Your task to perform on an android device: change text size in settings app Image 0: 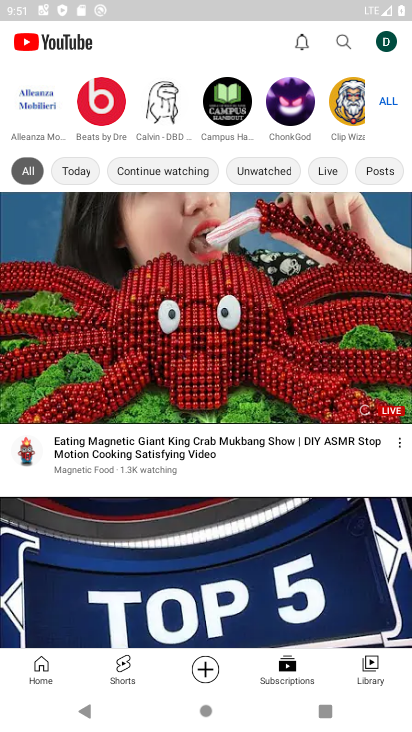
Step 0: press home button
Your task to perform on an android device: change text size in settings app Image 1: 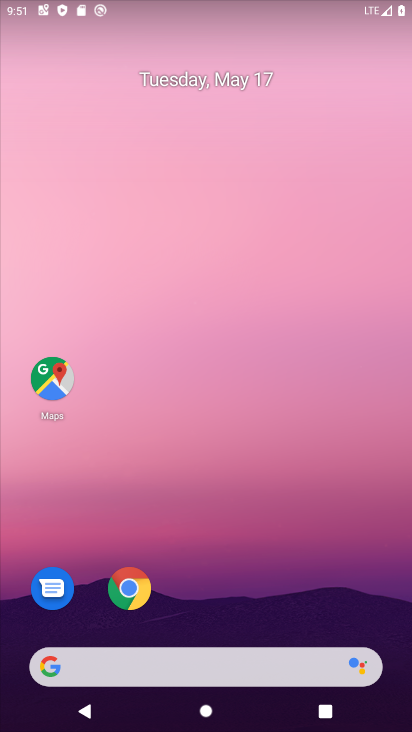
Step 1: drag from (199, 631) to (257, 4)
Your task to perform on an android device: change text size in settings app Image 2: 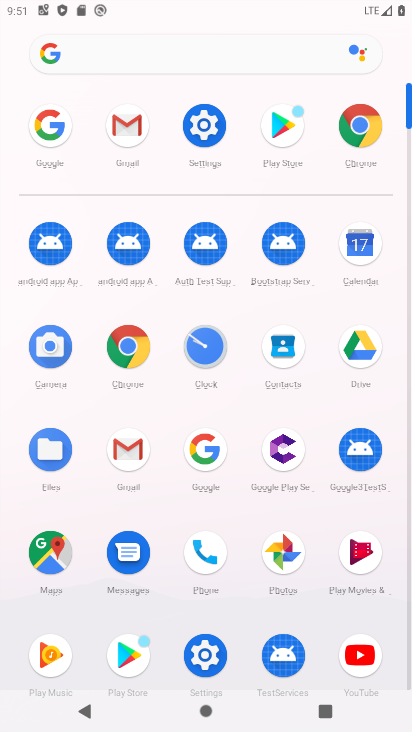
Step 2: click (192, 141)
Your task to perform on an android device: change text size in settings app Image 3: 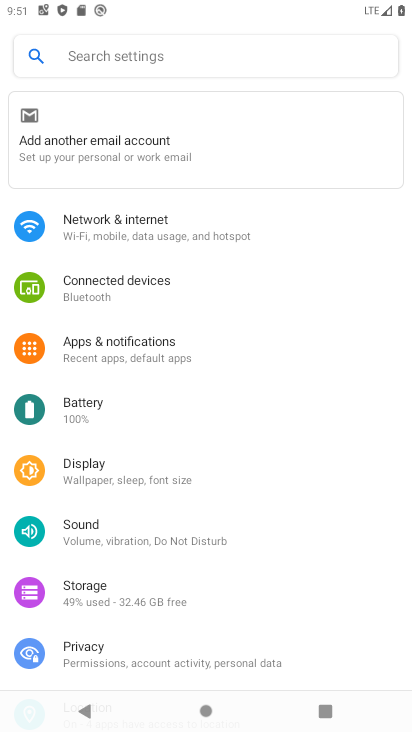
Step 3: drag from (218, 593) to (169, 201)
Your task to perform on an android device: change text size in settings app Image 4: 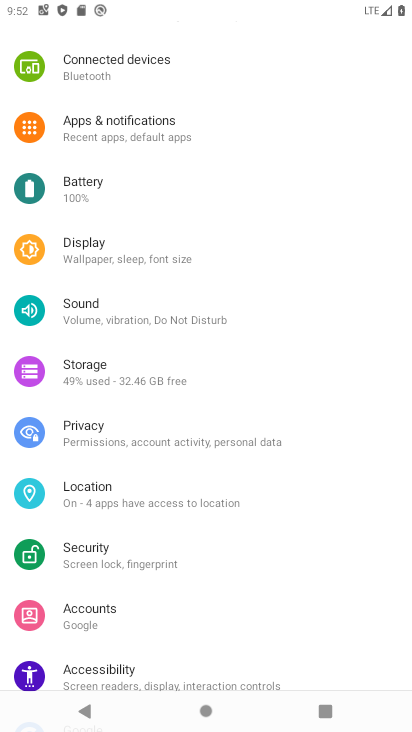
Step 4: drag from (157, 611) to (128, 169)
Your task to perform on an android device: change text size in settings app Image 5: 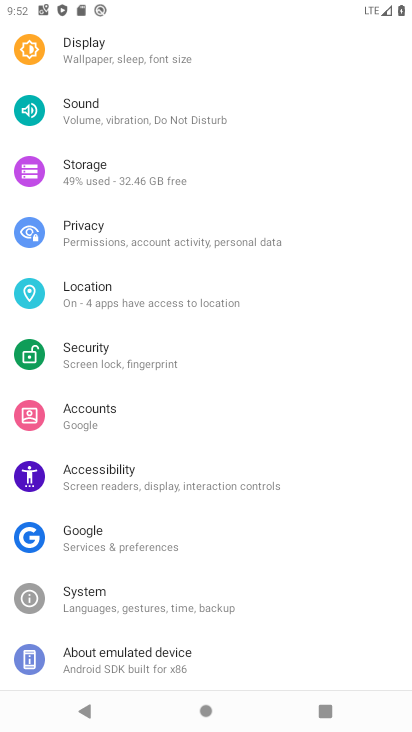
Step 5: click (81, 65)
Your task to perform on an android device: change text size in settings app Image 6: 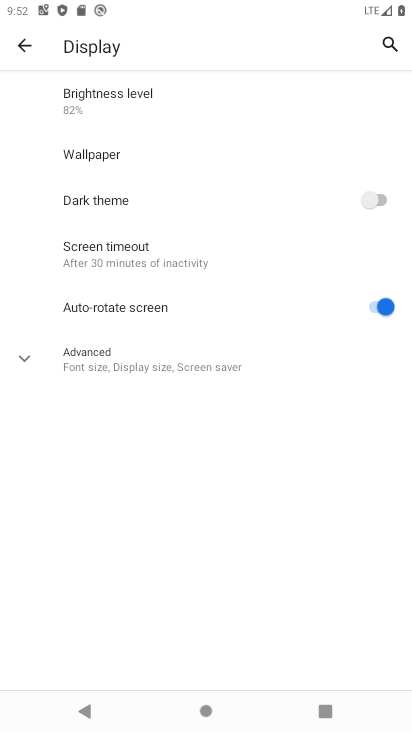
Step 6: click (83, 356)
Your task to perform on an android device: change text size in settings app Image 7: 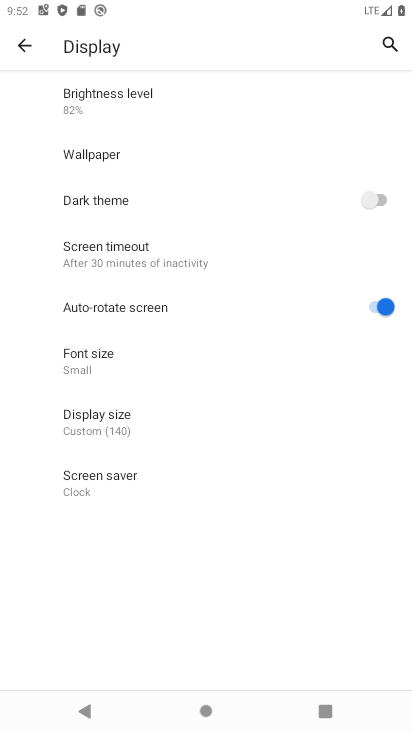
Step 7: click (130, 350)
Your task to perform on an android device: change text size in settings app Image 8: 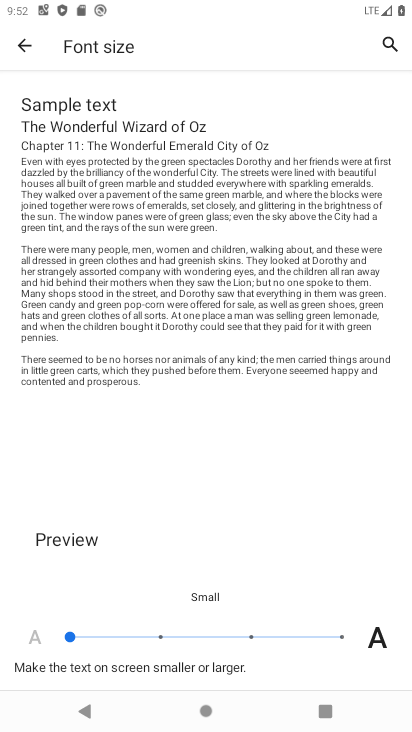
Step 8: click (161, 638)
Your task to perform on an android device: change text size in settings app Image 9: 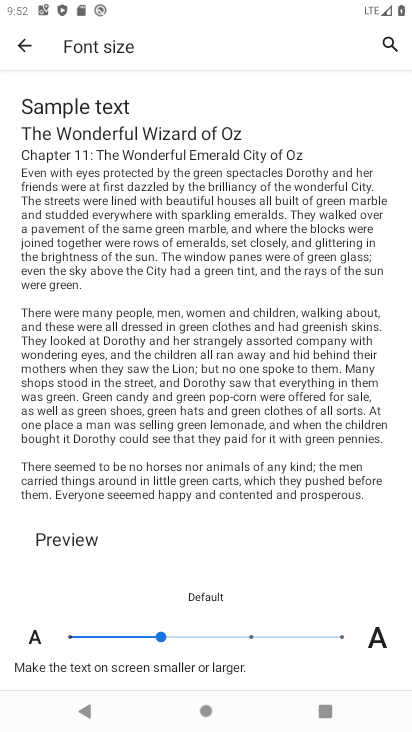
Step 9: task complete